Your task to perform on an android device: toggle location history Image 0: 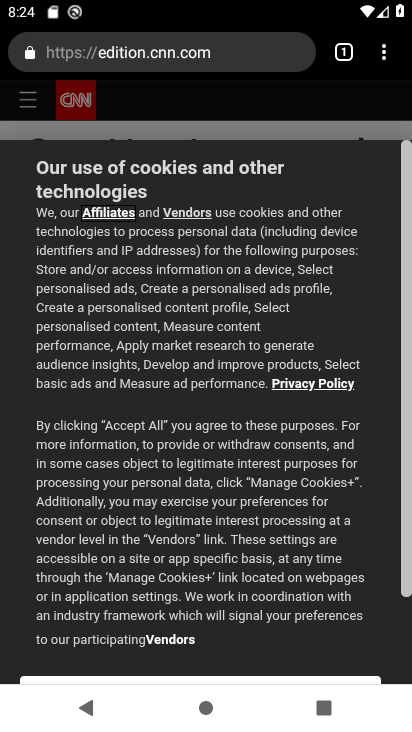
Step 0: press home button
Your task to perform on an android device: toggle location history Image 1: 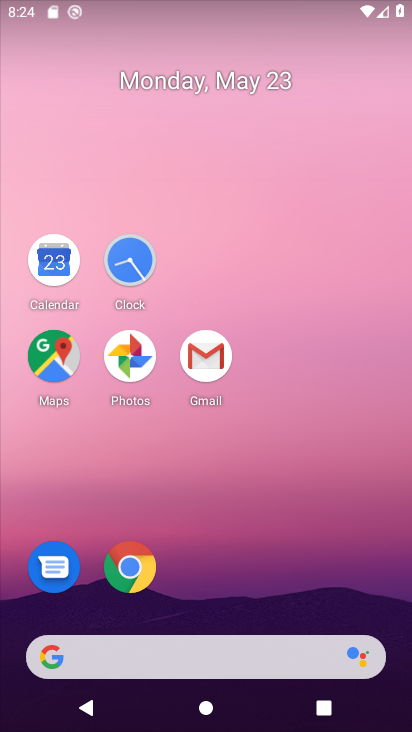
Step 1: drag from (214, 540) to (250, 105)
Your task to perform on an android device: toggle location history Image 2: 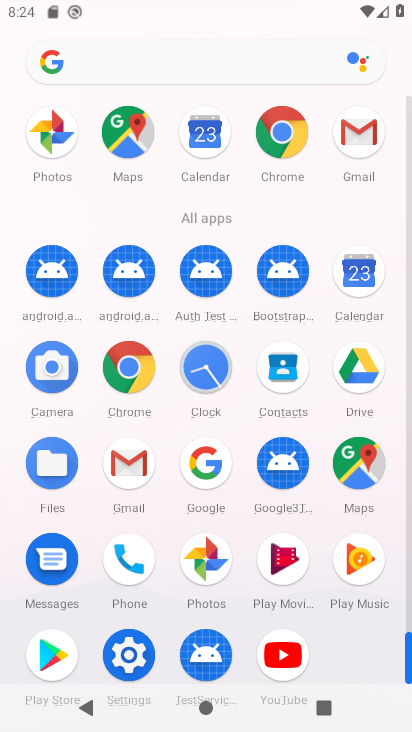
Step 2: drag from (128, 648) to (62, 173)
Your task to perform on an android device: toggle location history Image 3: 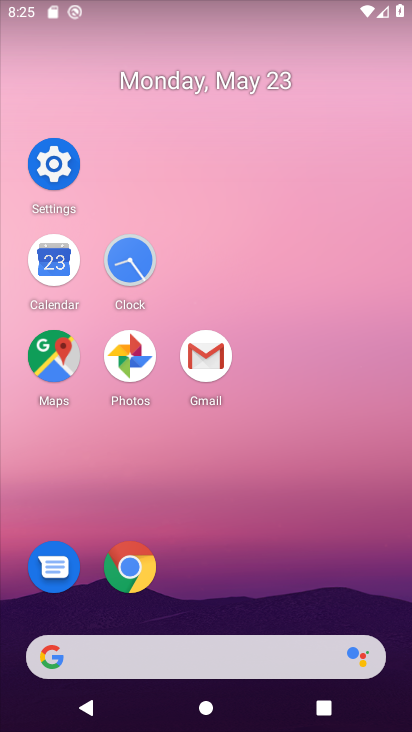
Step 3: click (62, 173)
Your task to perform on an android device: toggle location history Image 4: 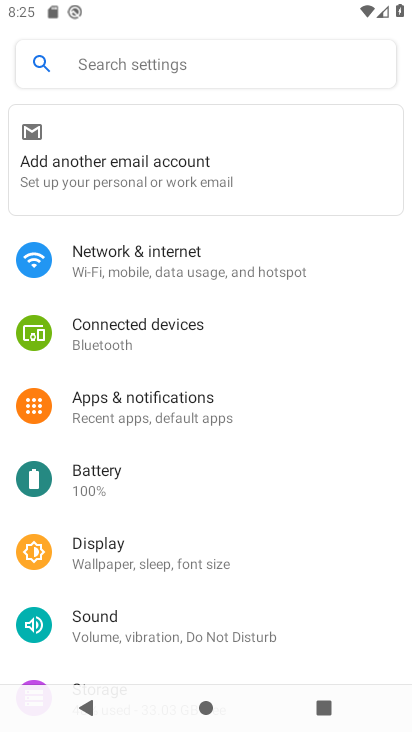
Step 4: drag from (247, 662) to (278, 304)
Your task to perform on an android device: toggle location history Image 5: 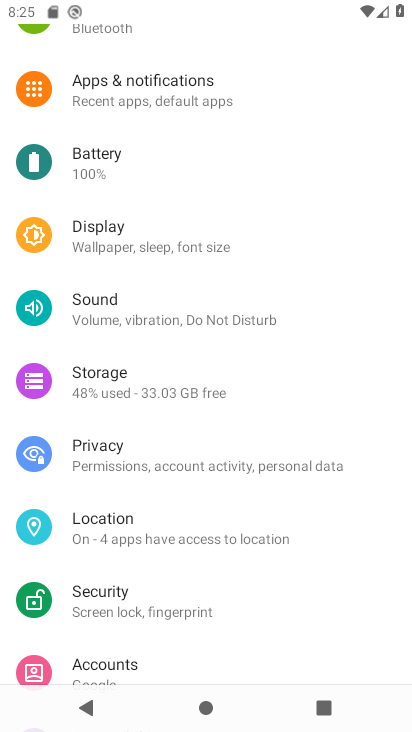
Step 5: click (199, 516)
Your task to perform on an android device: toggle location history Image 6: 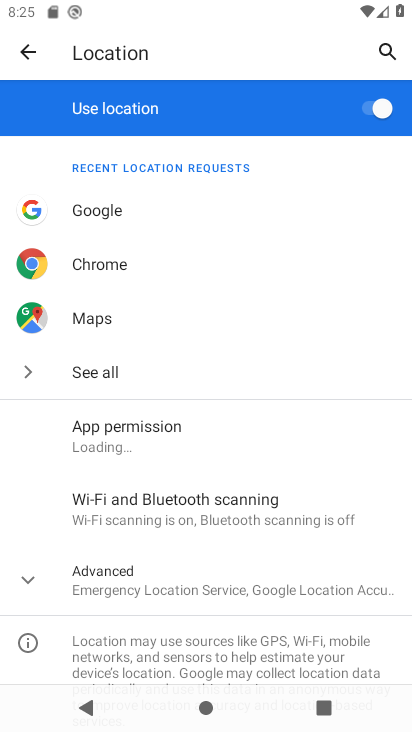
Step 6: click (200, 599)
Your task to perform on an android device: toggle location history Image 7: 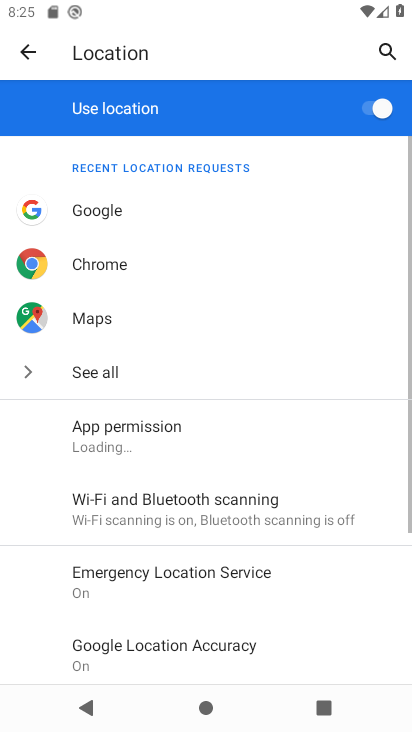
Step 7: drag from (202, 599) to (202, 252)
Your task to perform on an android device: toggle location history Image 8: 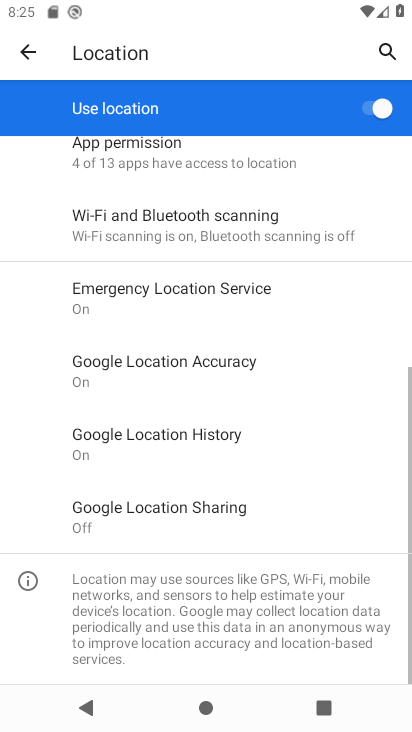
Step 8: click (207, 441)
Your task to perform on an android device: toggle location history Image 9: 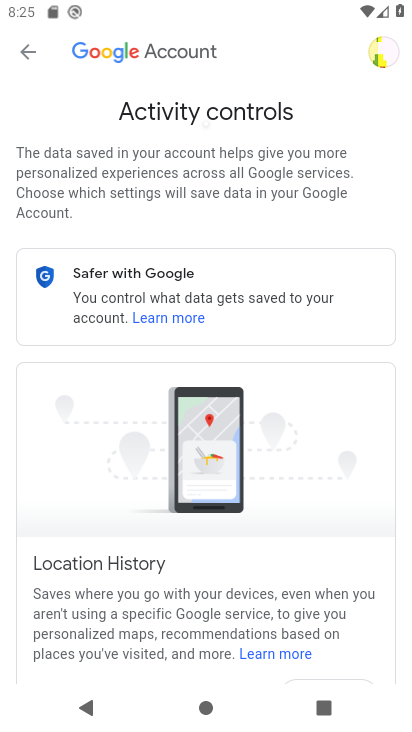
Step 9: drag from (189, 542) to (233, 163)
Your task to perform on an android device: toggle location history Image 10: 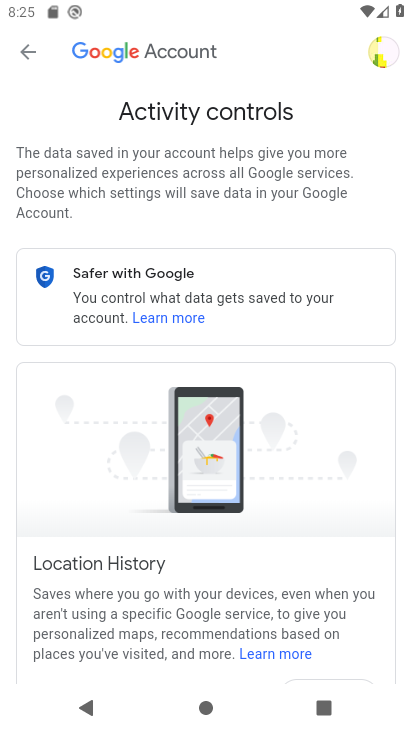
Step 10: drag from (308, 601) to (264, 297)
Your task to perform on an android device: toggle location history Image 11: 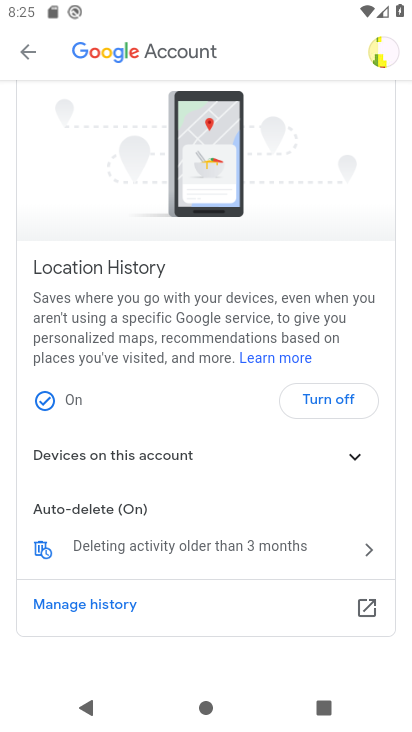
Step 11: click (349, 400)
Your task to perform on an android device: toggle location history Image 12: 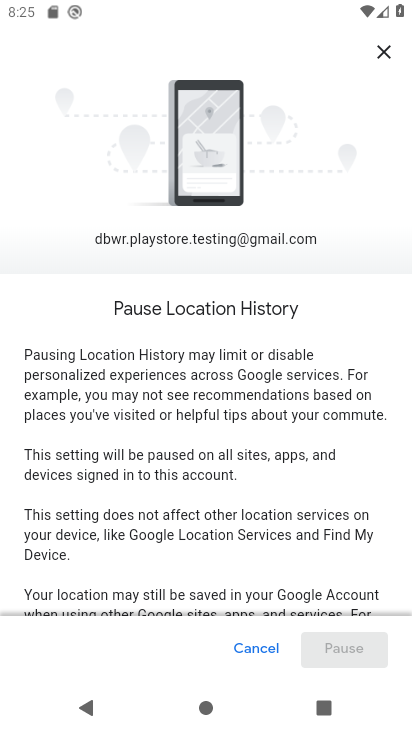
Step 12: drag from (336, 600) to (327, 238)
Your task to perform on an android device: toggle location history Image 13: 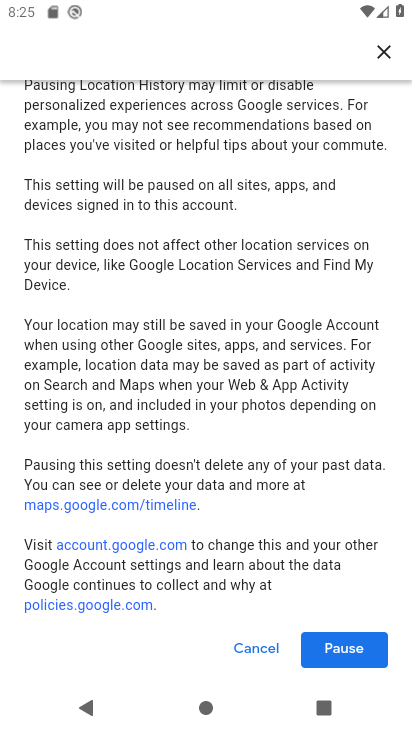
Step 13: click (354, 653)
Your task to perform on an android device: toggle location history Image 14: 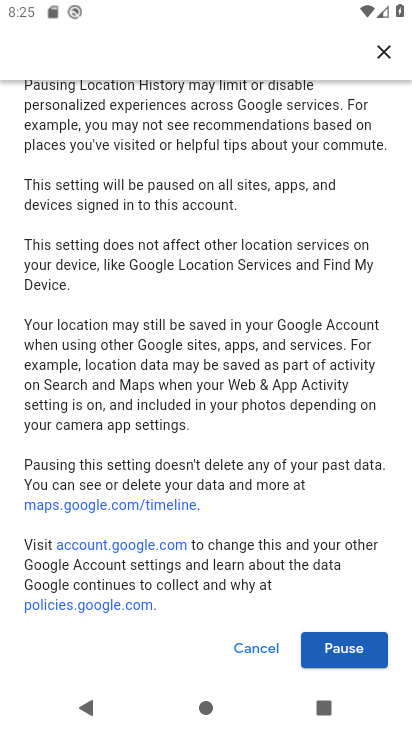
Step 14: click (361, 649)
Your task to perform on an android device: toggle location history Image 15: 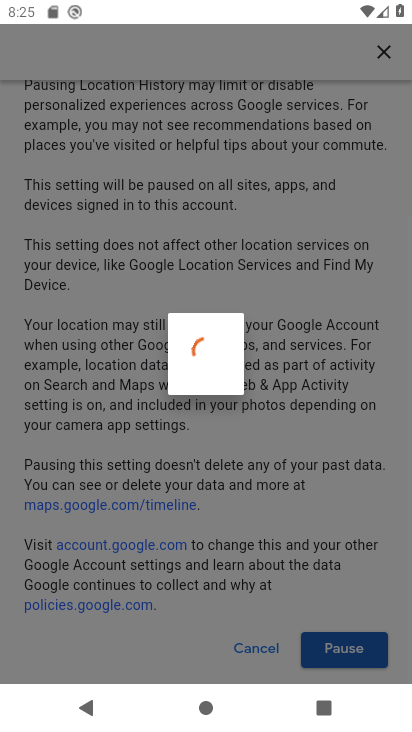
Step 15: drag from (282, 266) to (319, 426)
Your task to perform on an android device: toggle location history Image 16: 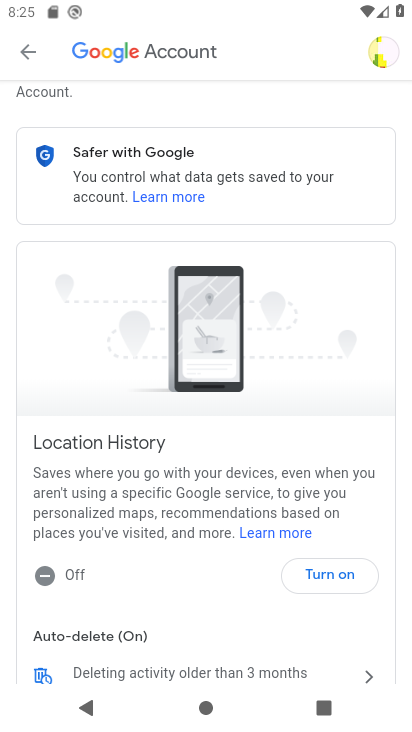
Step 16: drag from (232, 589) to (311, 187)
Your task to perform on an android device: toggle location history Image 17: 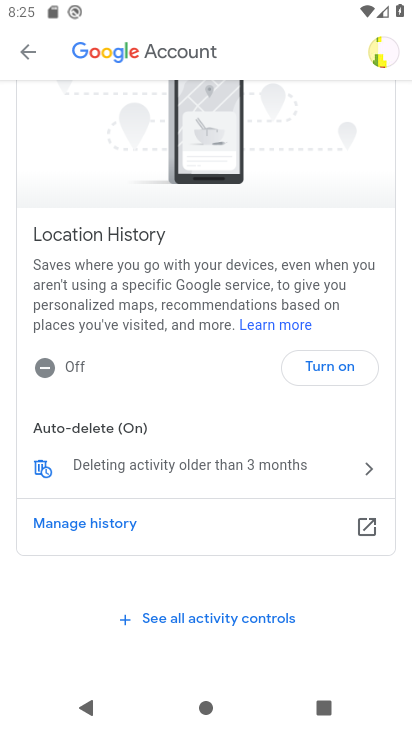
Step 17: click (362, 370)
Your task to perform on an android device: toggle location history Image 18: 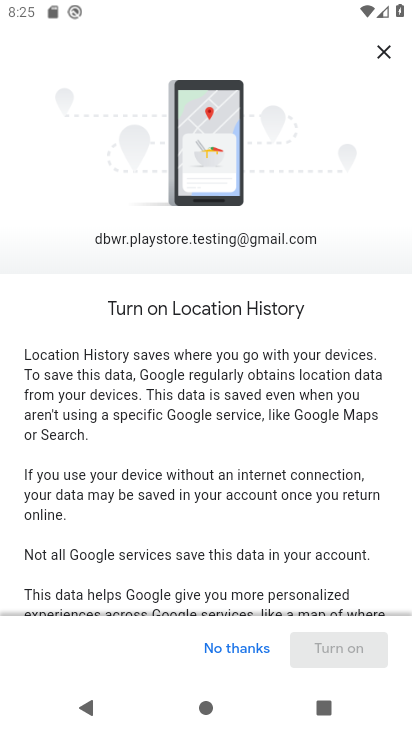
Step 18: drag from (347, 585) to (342, 132)
Your task to perform on an android device: toggle location history Image 19: 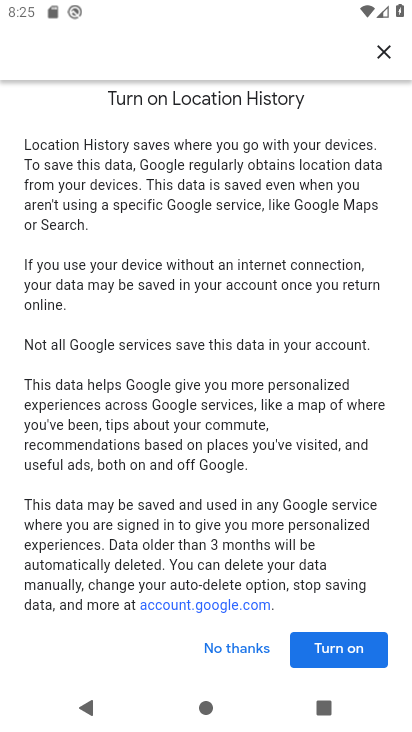
Step 19: click (327, 641)
Your task to perform on an android device: toggle location history Image 20: 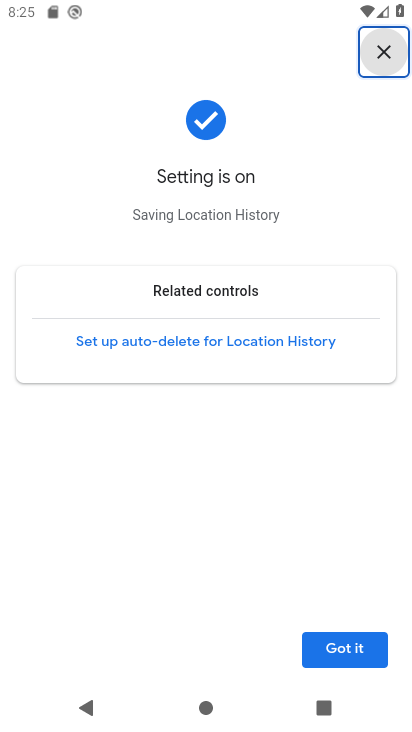
Step 20: click (337, 662)
Your task to perform on an android device: toggle location history Image 21: 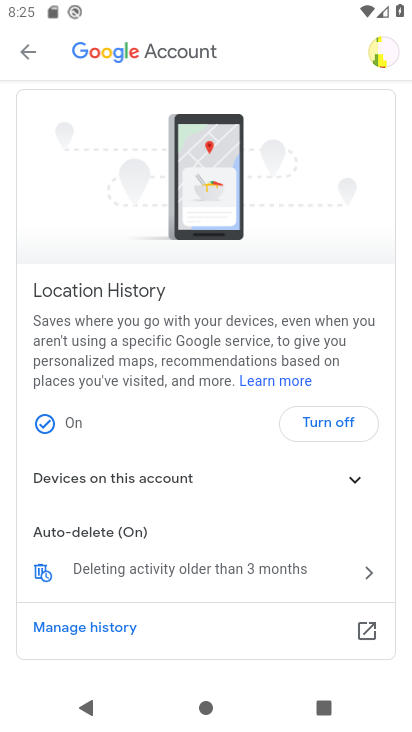
Step 21: task complete